Your task to perform on an android device: Open calendar and show me the second week of next month Image 0: 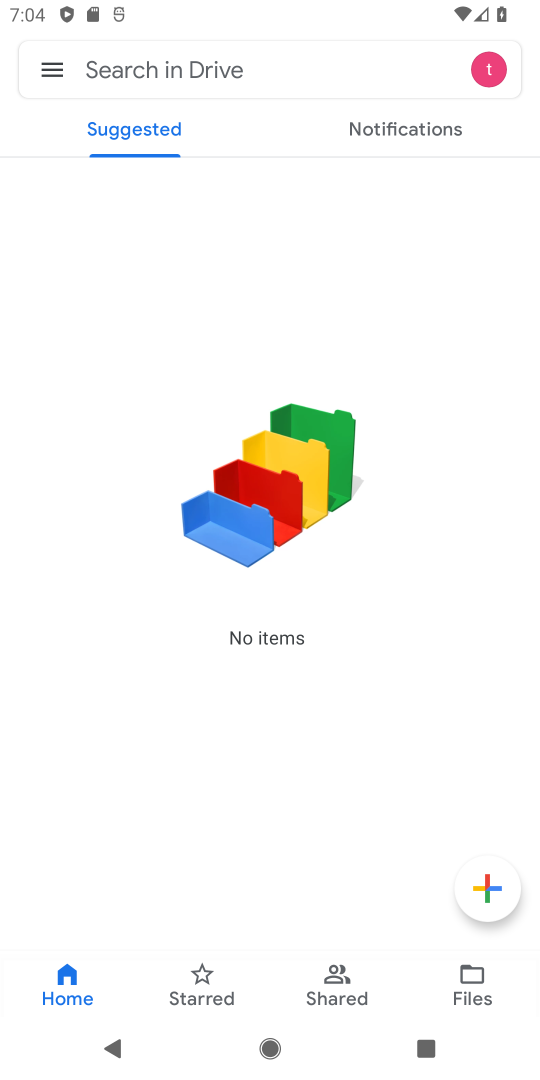
Step 0: press home button
Your task to perform on an android device: Open calendar and show me the second week of next month Image 1: 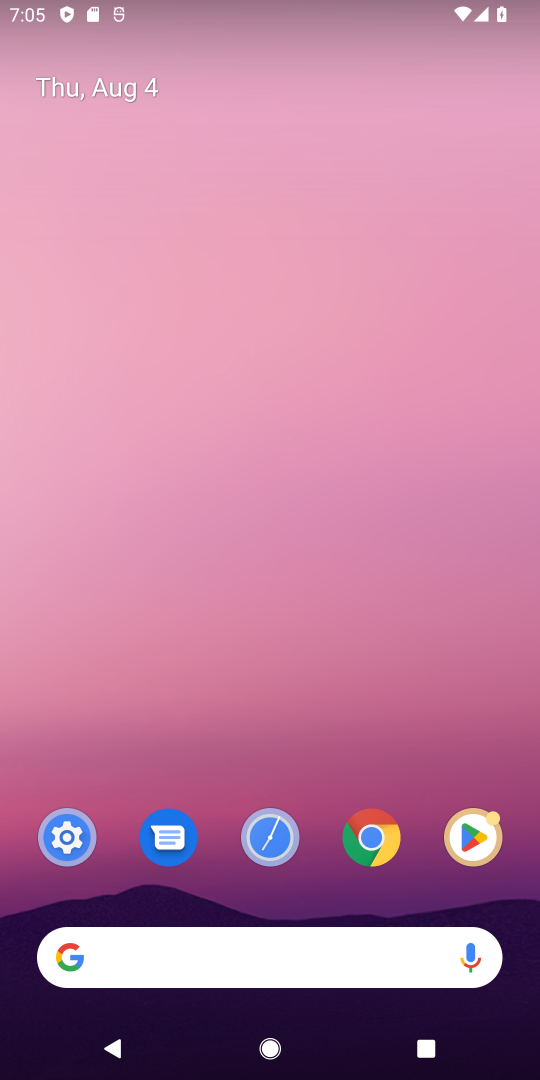
Step 1: drag from (357, 636) to (322, 168)
Your task to perform on an android device: Open calendar and show me the second week of next month Image 2: 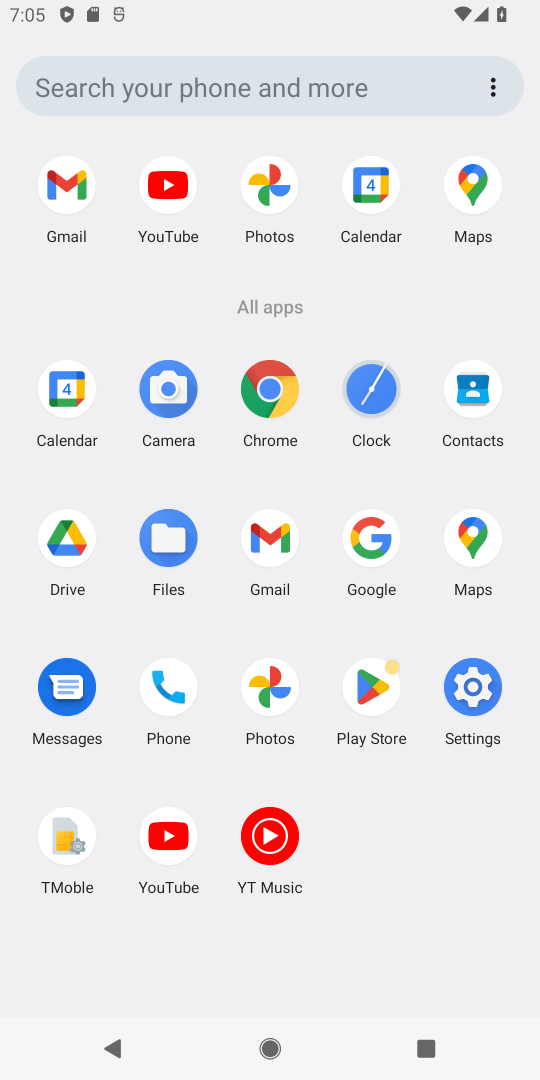
Step 2: click (369, 206)
Your task to perform on an android device: Open calendar and show me the second week of next month Image 3: 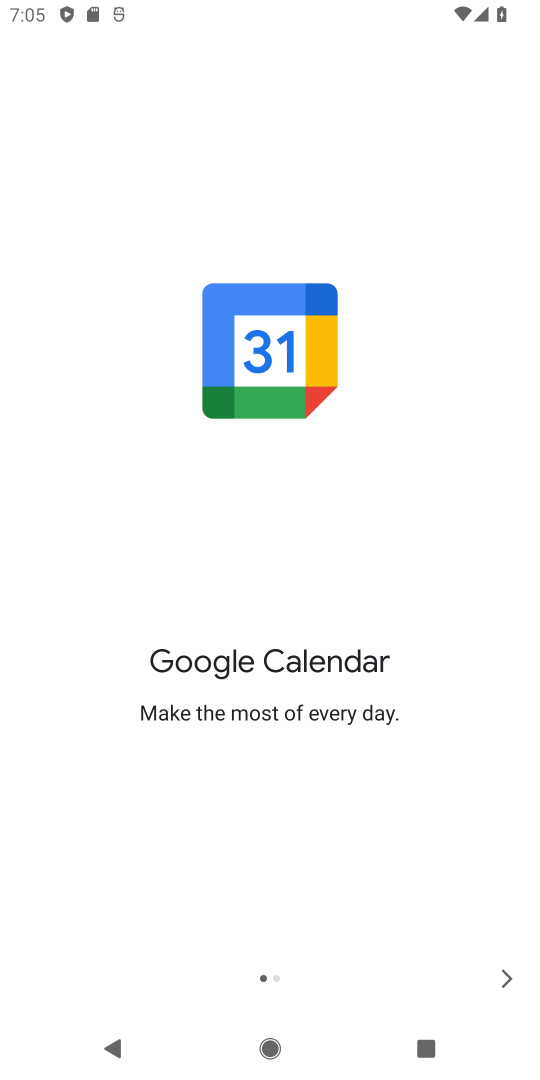
Step 3: click (505, 984)
Your task to perform on an android device: Open calendar and show me the second week of next month Image 4: 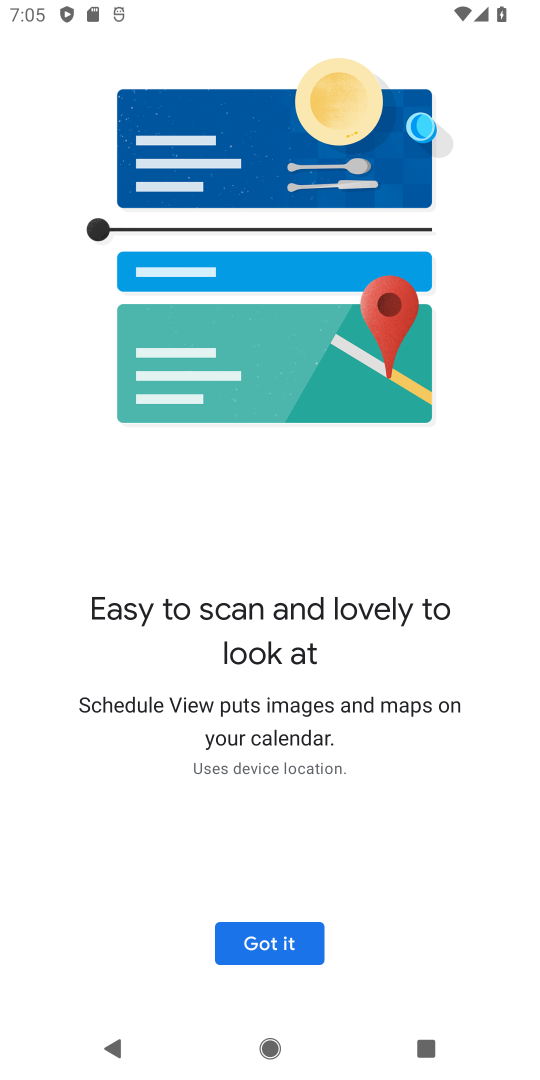
Step 4: click (505, 984)
Your task to perform on an android device: Open calendar and show me the second week of next month Image 5: 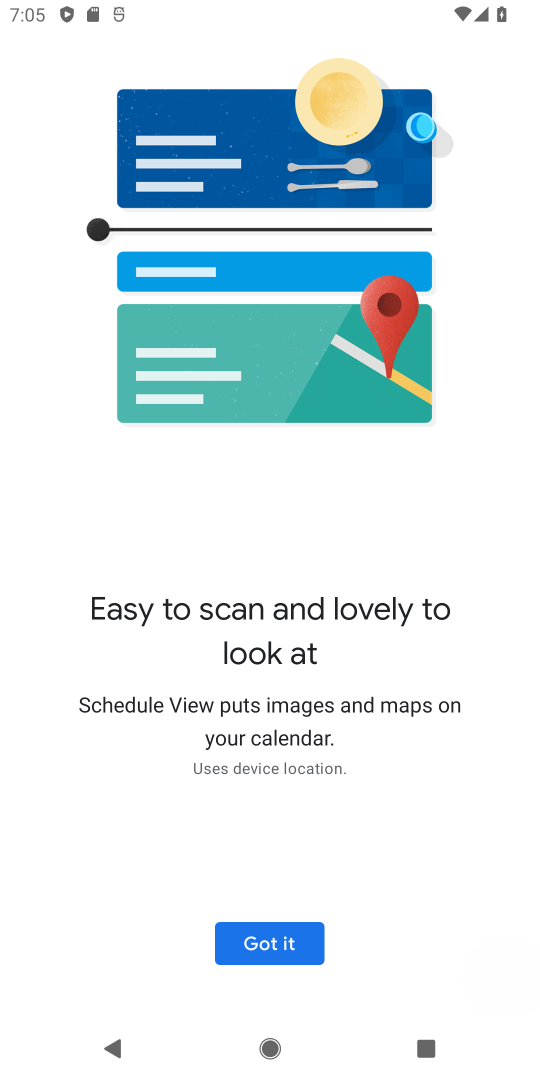
Step 5: click (282, 948)
Your task to perform on an android device: Open calendar and show me the second week of next month Image 6: 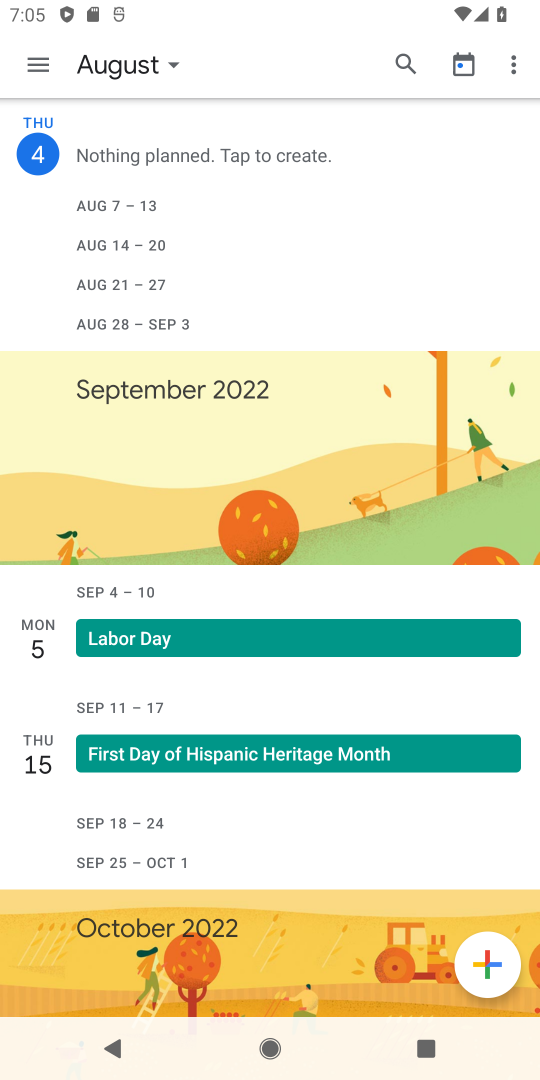
Step 6: task complete